Your task to perform on an android device: Empty the shopping cart on target. Search for asus zenbook on target, select the first entry, add it to the cart, then select checkout. Image 0: 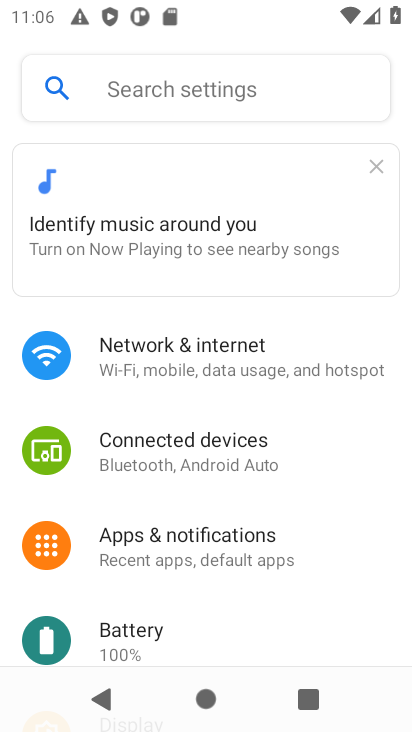
Step 0: press home button
Your task to perform on an android device: Empty the shopping cart on target. Search for asus zenbook on target, select the first entry, add it to the cart, then select checkout. Image 1: 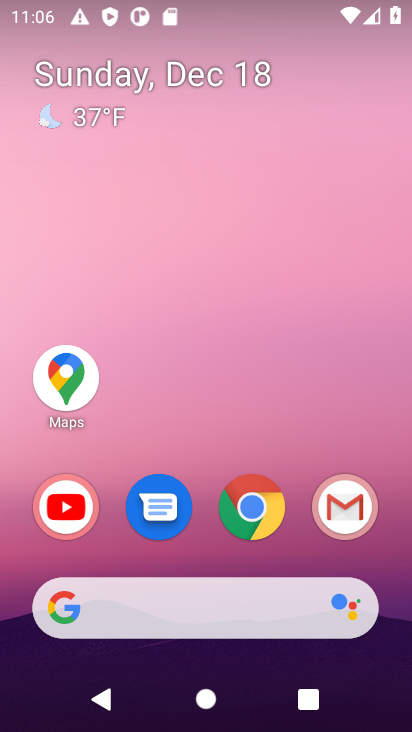
Step 1: click (243, 513)
Your task to perform on an android device: Empty the shopping cart on target. Search for asus zenbook on target, select the first entry, add it to the cart, then select checkout. Image 2: 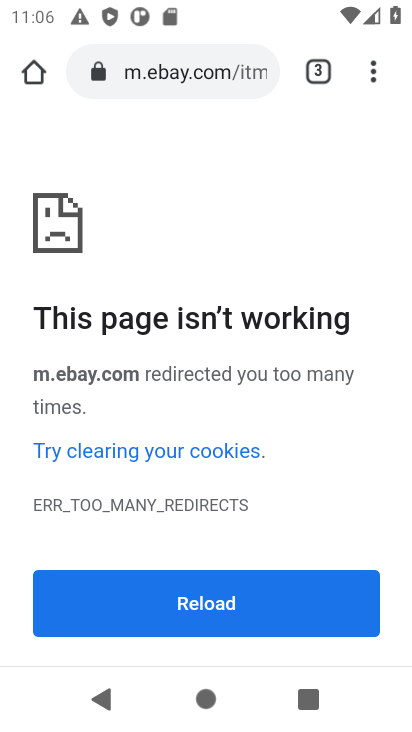
Step 2: click (192, 71)
Your task to perform on an android device: Empty the shopping cart on target. Search for asus zenbook on target, select the first entry, add it to the cart, then select checkout. Image 3: 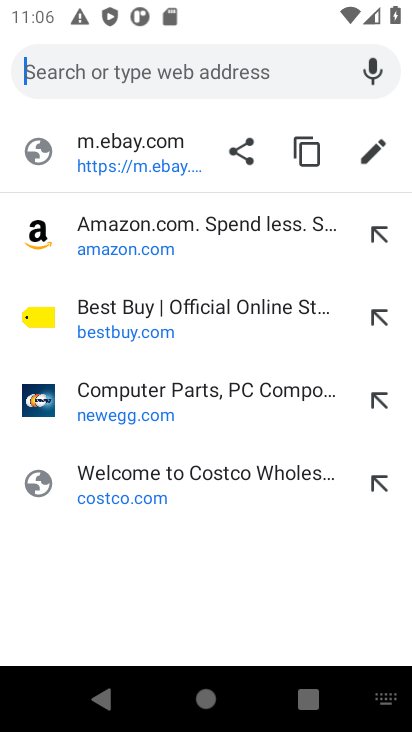
Step 3: type "target.com"
Your task to perform on an android device: Empty the shopping cart on target. Search for asus zenbook on target, select the first entry, add it to the cart, then select checkout. Image 4: 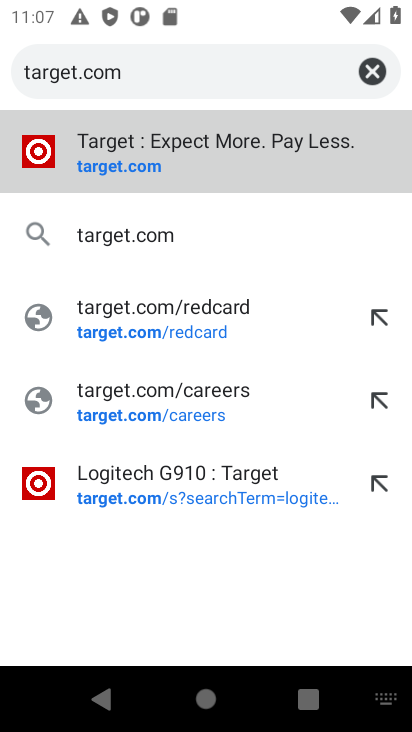
Step 4: click (188, 151)
Your task to perform on an android device: Empty the shopping cart on target. Search for asus zenbook on target, select the first entry, add it to the cart, then select checkout. Image 5: 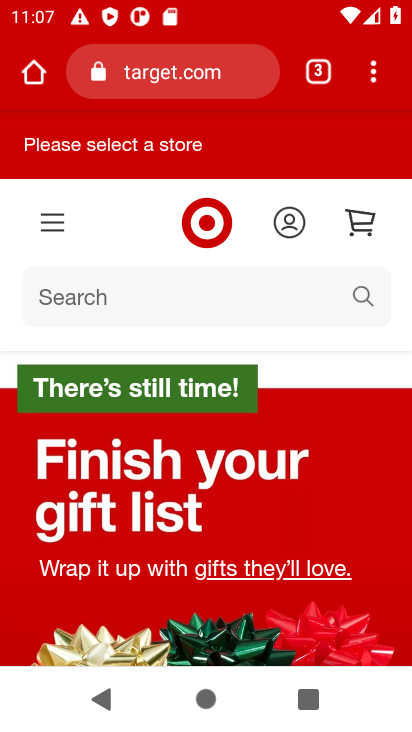
Step 5: click (365, 214)
Your task to perform on an android device: Empty the shopping cart on target. Search for asus zenbook on target, select the first entry, add it to the cart, then select checkout. Image 6: 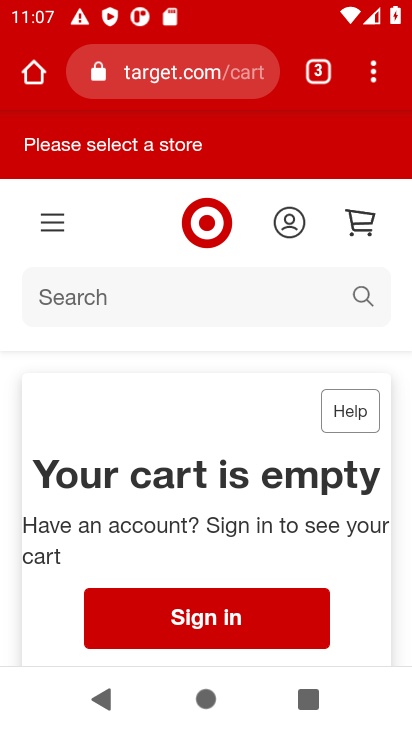
Step 6: drag from (211, 579) to (207, 404)
Your task to perform on an android device: Empty the shopping cart on target. Search for asus zenbook on target, select the first entry, add it to the cart, then select checkout. Image 7: 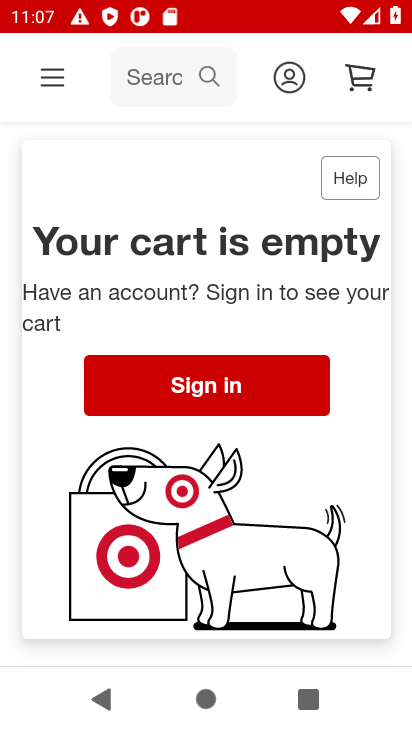
Step 7: drag from (197, 227) to (190, 487)
Your task to perform on an android device: Empty the shopping cart on target. Search for asus zenbook on target, select the first entry, add it to the cart, then select checkout. Image 8: 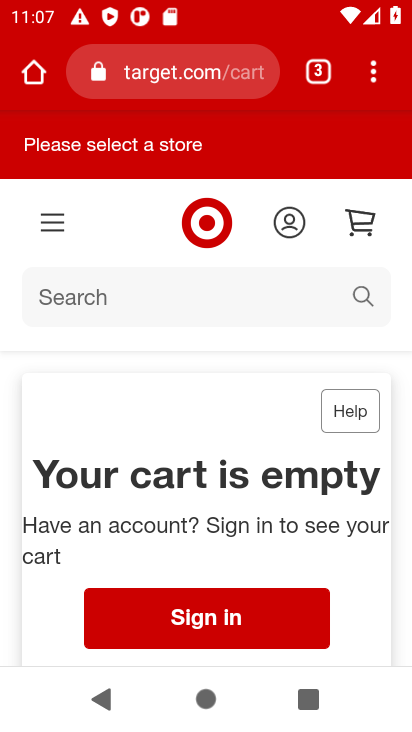
Step 8: click (56, 294)
Your task to perform on an android device: Empty the shopping cart on target. Search for asus zenbook on target, select the first entry, add it to the cart, then select checkout. Image 9: 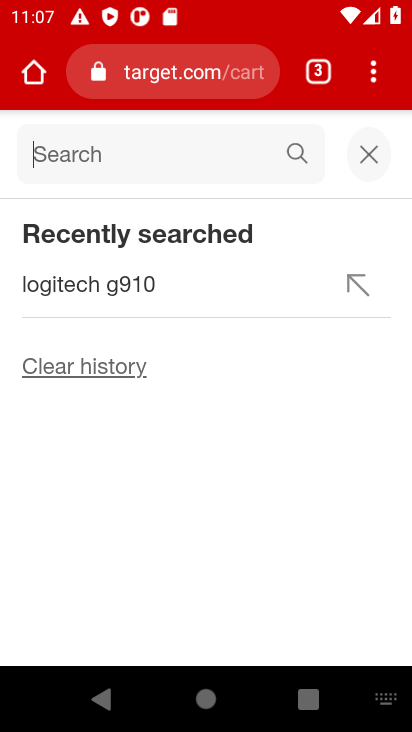
Step 9: type "asus zenbook "
Your task to perform on an android device: Empty the shopping cart on target. Search for asus zenbook on target, select the first entry, add it to the cart, then select checkout. Image 10: 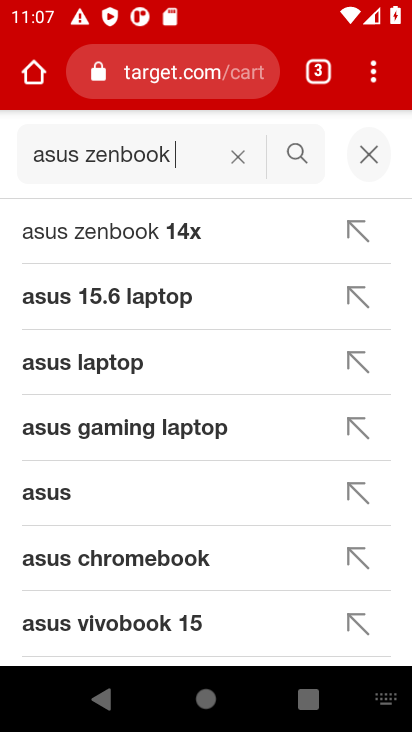
Step 10: click (300, 159)
Your task to perform on an android device: Empty the shopping cart on target. Search for asus zenbook on target, select the first entry, add it to the cart, then select checkout. Image 11: 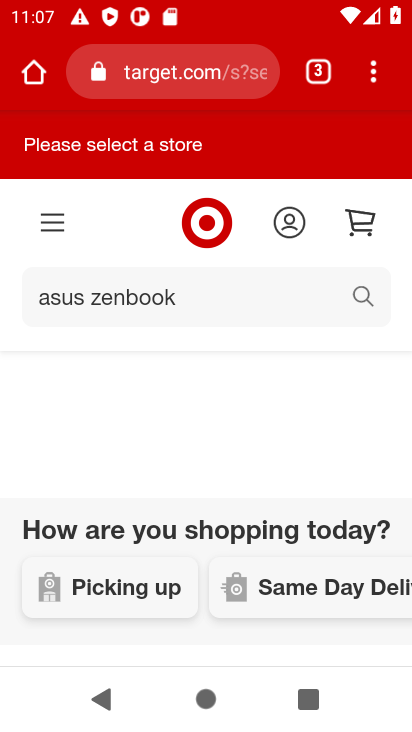
Step 11: drag from (132, 518) to (128, 247)
Your task to perform on an android device: Empty the shopping cart on target. Search for asus zenbook on target, select the first entry, add it to the cart, then select checkout. Image 12: 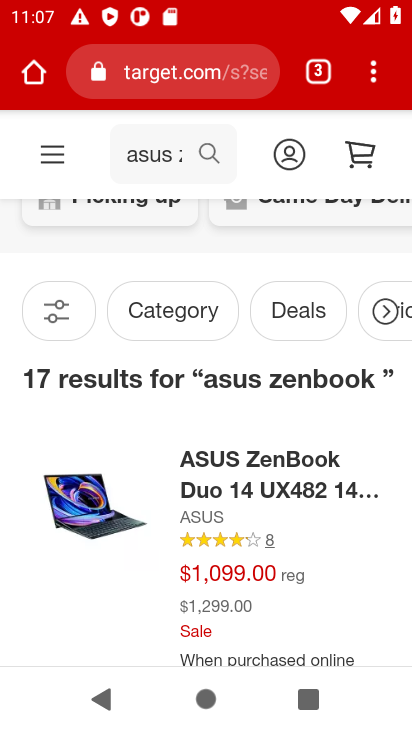
Step 12: drag from (126, 487) to (121, 229)
Your task to perform on an android device: Empty the shopping cart on target. Search for asus zenbook on target, select the first entry, add it to the cart, then select checkout. Image 13: 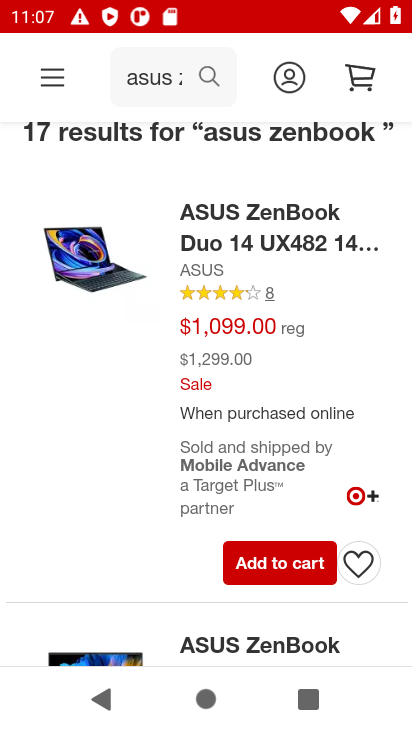
Step 13: click (270, 564)
Your task to perform on an android device: Empty the shopping cart on target. Search for asus zenbook on target, select the first entry, add it to the cart, then select checkout. Image 14: 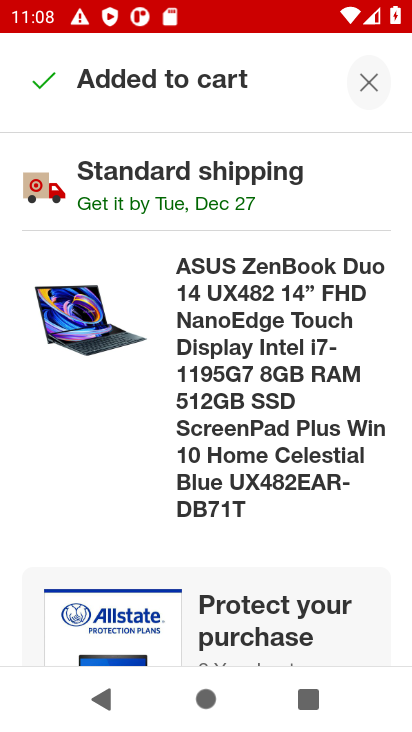
Step 14: drag from (236, 500) to (231, 216)
Your task to perform on an android device: Empty the shopping cart on target. Search for asus zenbook on target, select the first entry, add it to the cart, then select checkout. Image 15: 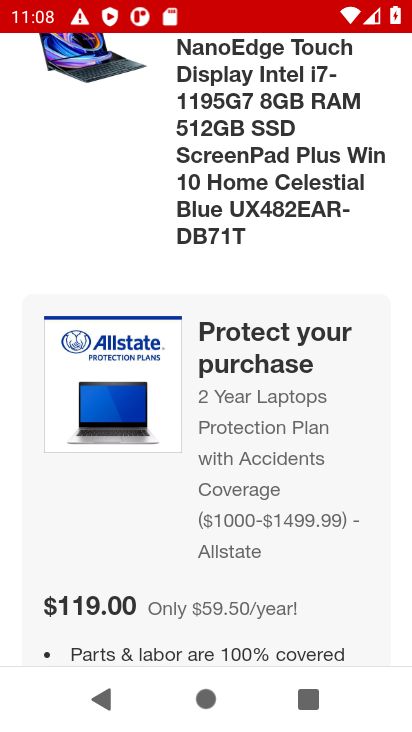
Step 15: drag from (237, 523) to (196, 156)
Your task to perform on an android device: Empty the shopping cart on target. Search for asus zenbook on target, select the first entry, add it to the cart, then select checkout. Image 16: 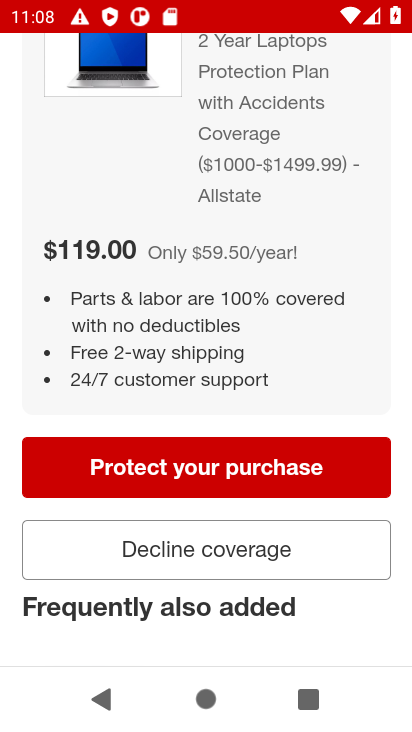
Step 16: click (187, 555)
Your task to perform on an android device: Empty the shopping cart on target. Search for asus zenbook on target, select the first entry, add it to the cart, then select checkout. Image 17: 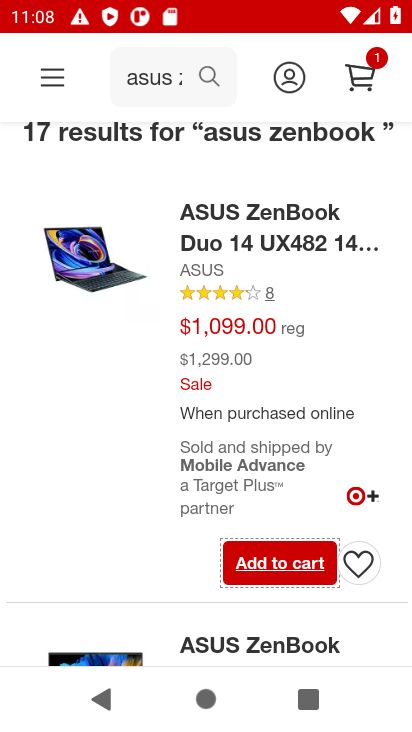
Step 17: click (365, 79)
Your task to perform on an android device: Empty the shopping cart on target. Search for asus zenbook on target, select the first entry, add it to the cart, then select checkout. Image 18: 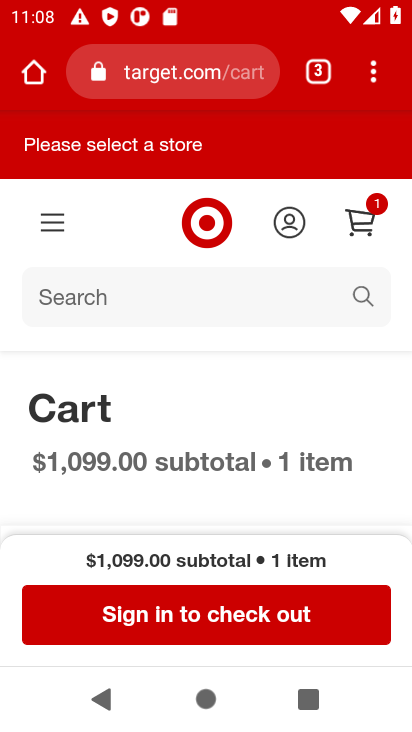
Step 18: click (173, 620)
Your task to perform on an android device: Empty the shopping cart on target. Search for asus zenbook on target, select the first entry, add it to the cart, then select checkout. Image 19: 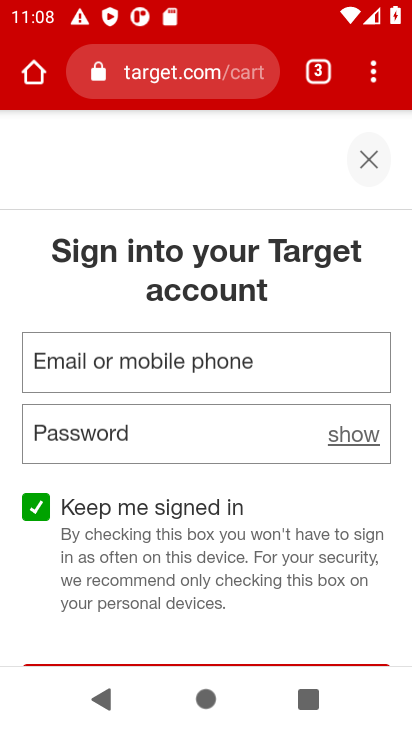
Step 19: task complete